Your task to perform on an android device: set an alarm Image 0: 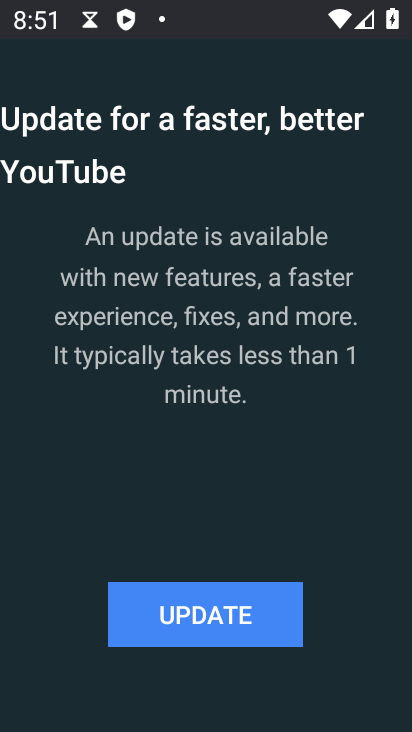
Step 0: press home button
Your task to perform on an android device: set an alarm Image 1: 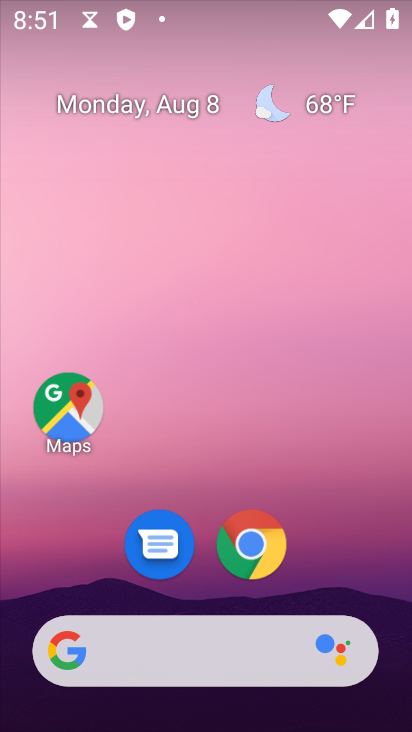
Step 1: drag from (205, 580) to (219, 71)
Your task to perform on an android device: set an alarm Image 2: 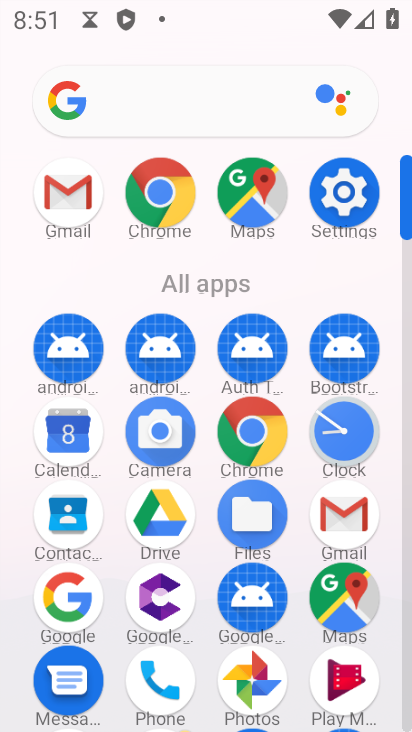
Step 2: click (343, 425)
Your task to perform on an android device: set an alarm Image 3: 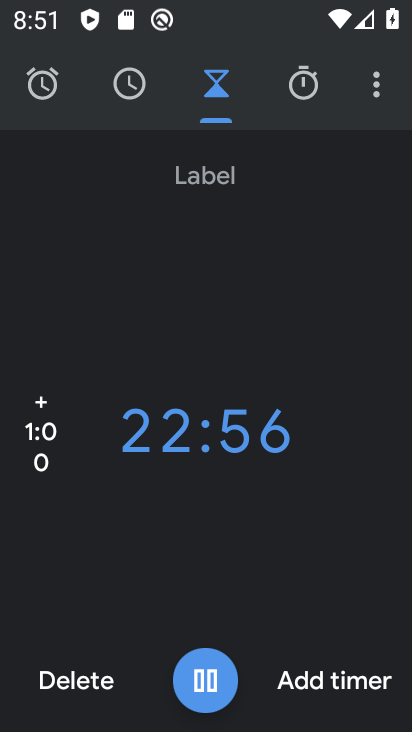
Step 3: click (42, 88)
Your task to perform on an android device: set an alarm Image 4: 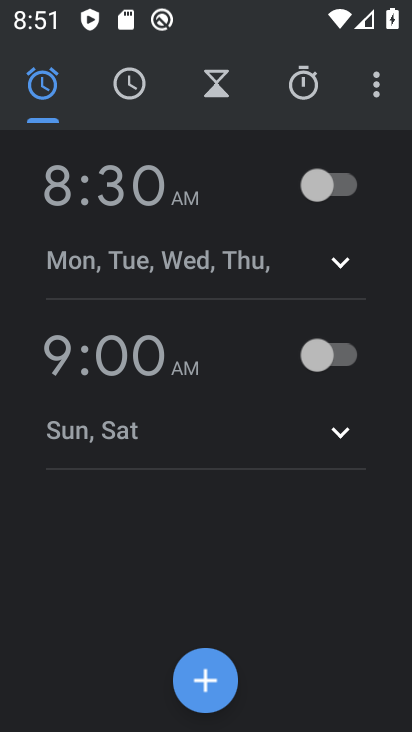
Step 4: click (335, 194)
Your task to perform on an android device: set an alarm Image 5: 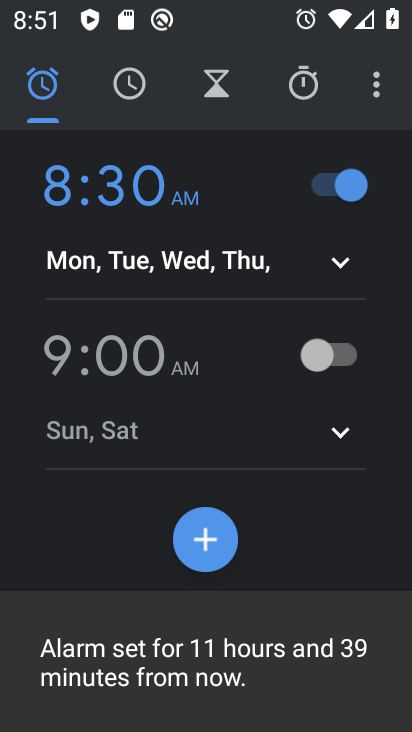
Step 5: click (350, 348)
Your task to perform on an android device: set an alarm Image 6: 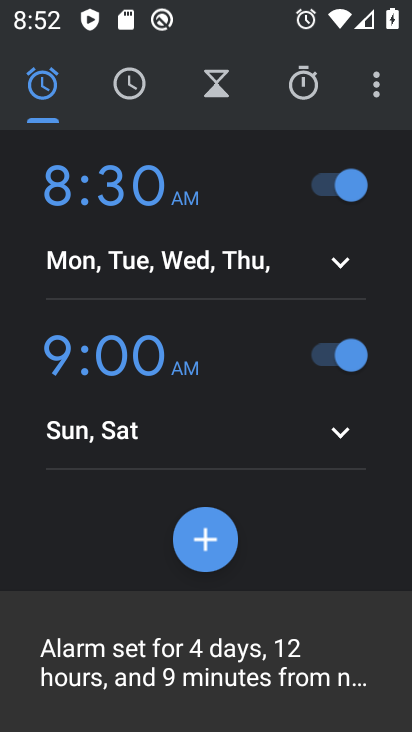
Step 6: task complete